Your task to perform on an android device: Open Google Image 0: 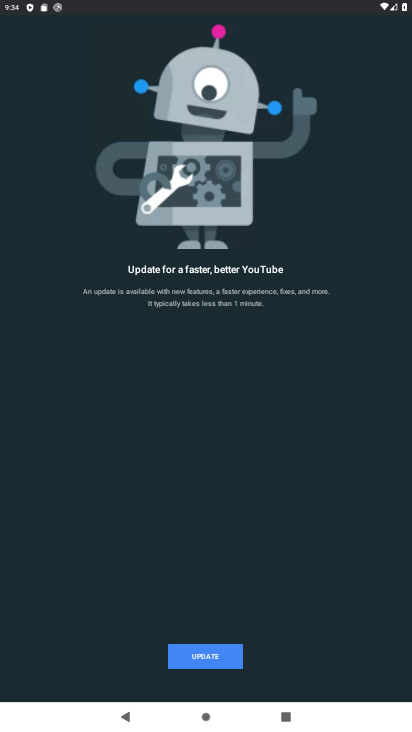
Step 0: press home button
Your task to perform on an android device: Open Google Image 1: 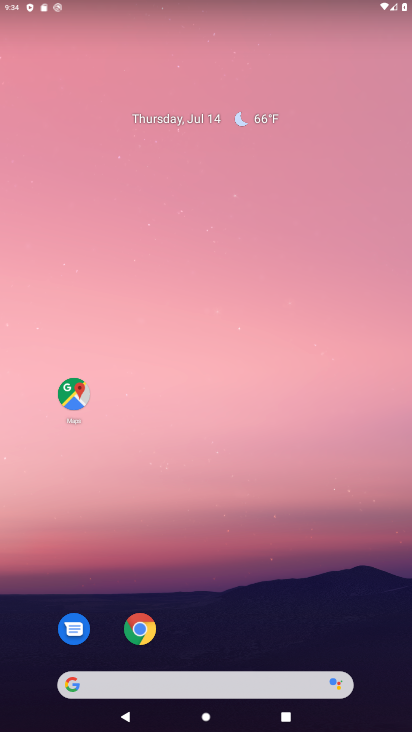
Step 1: drag from (295, 429) to (292, 190)
Your task to perform on an android device: Open Google Image 2: 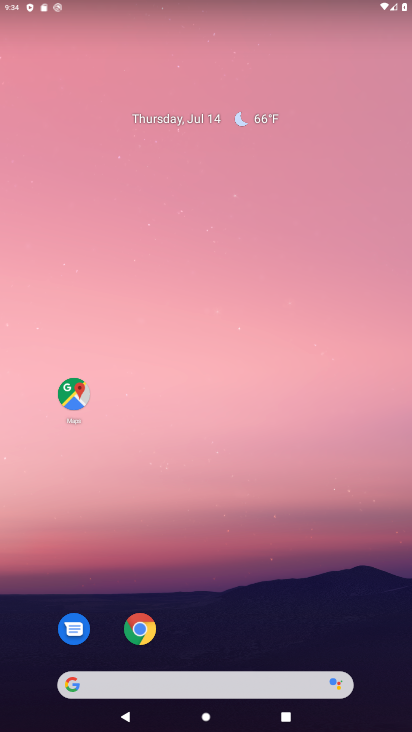
Step 2: drag from (277, 606) to (240, 167)
Your task to perform on an android device: Open Google Image 3: 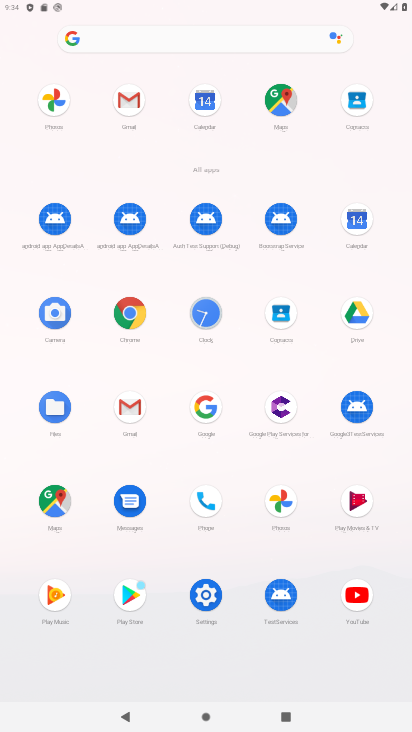
Step 3: click (210, 408)
Your task to perform on an android device: Open Google Image 4: 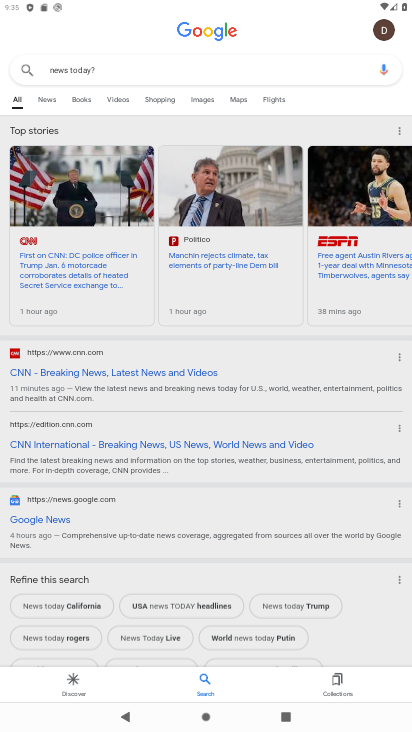
Step 4: click (213, 29)
Your task to perform on an android device: Open Google Image 5: 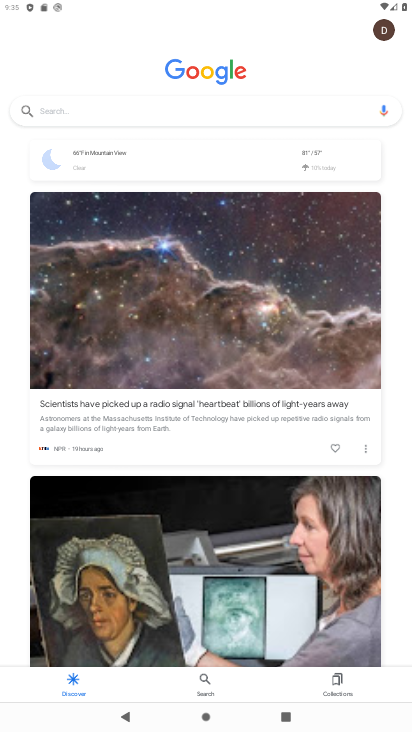
Step 5: task complete